Your task to perform on an android device: turn off picture-in-picture Image 0: 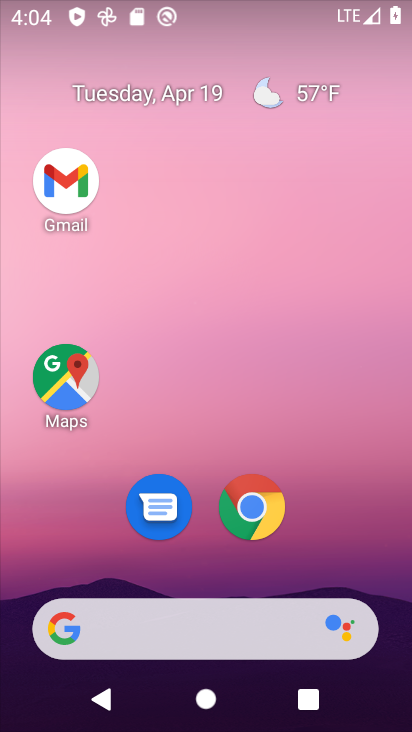
Step 0: click (246, 525)
Your task to perform on an android device: turn off picture-in-picture Image 1: 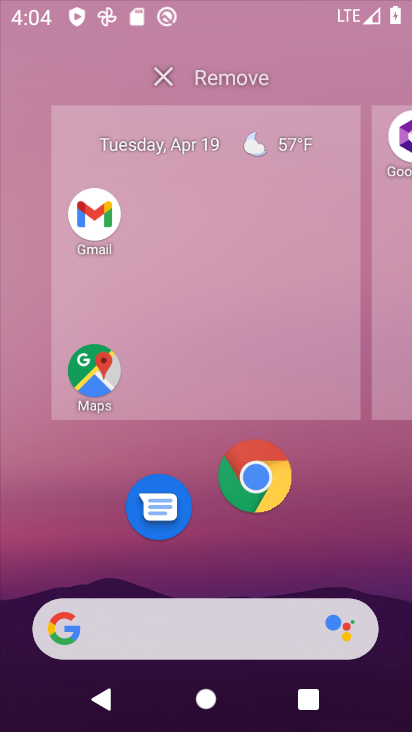
Step 1: click (252, 277)
Your task to perform on an android device: turn off picture-in-picture Image 2: 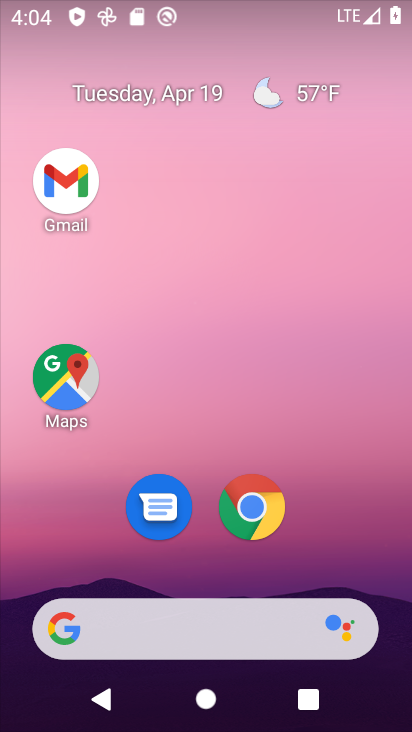
Step 2: click (252, 521)
Your task to perform on an android device: turn off picture-in-picture Image 3: 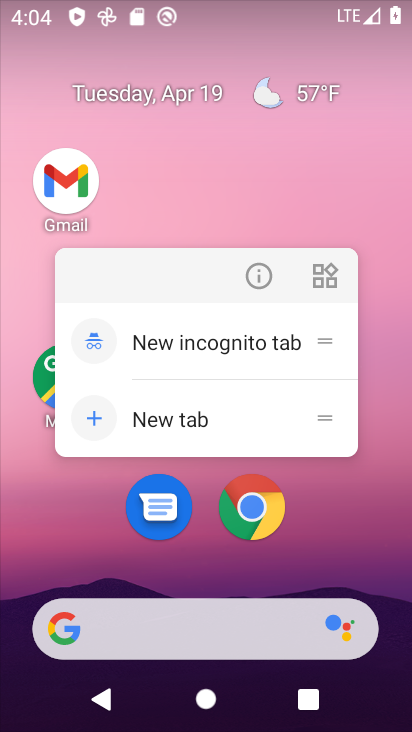
Step 3: click (254, 274)
Your task to perform on an android device: turn off picture-in-picture Image 4: 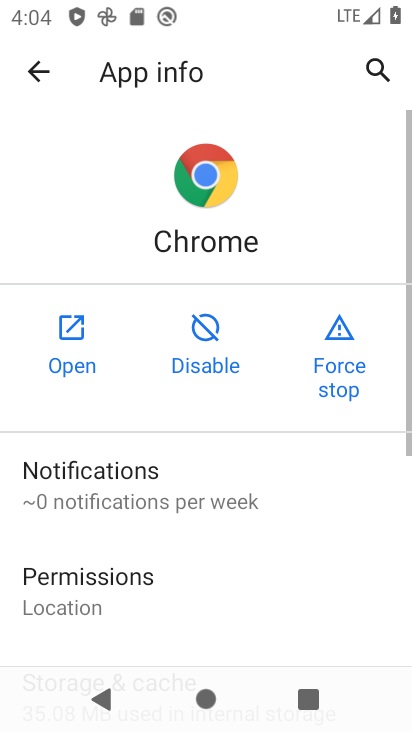
Step 4: drag from (224, 486) to (278, 76)
Your task to perform on an android device: turn off picture-in-picture Image 5: 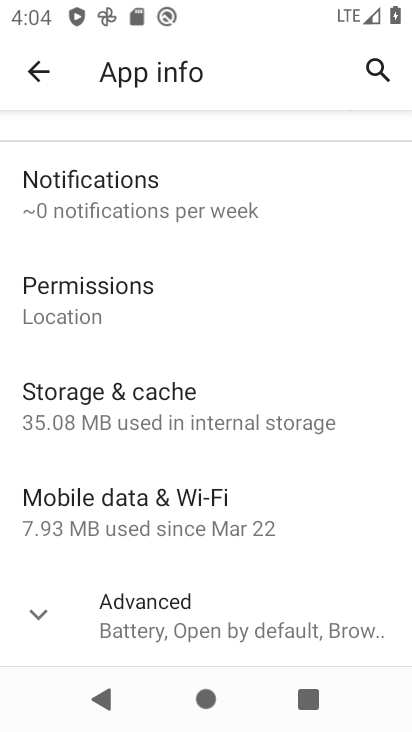
Step 5: click (242, 621)
Your task to perform on an android device: turn off picture-in-picture Image 6: 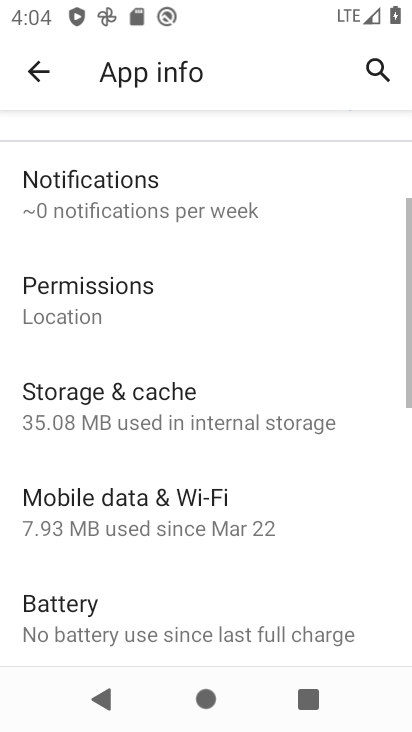
Step 6: drag from (241, 615) to (297, 107)
Your task to perform on an android device: turn off picture-in-picture Image 7: 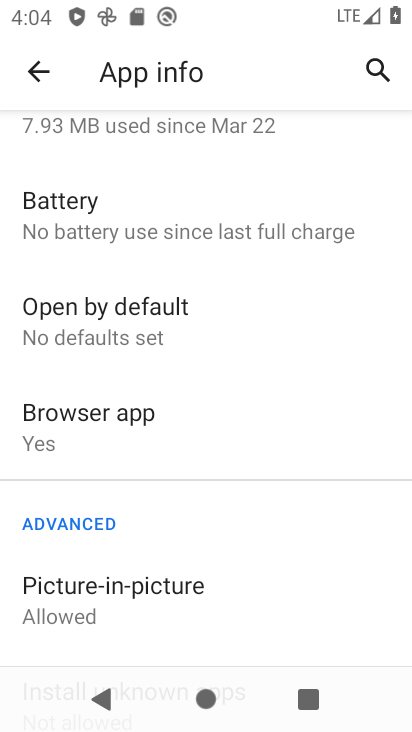
Step 7: click (254, 584)
Your task to perform on an android device: turn off picture-in-picture Image 8: 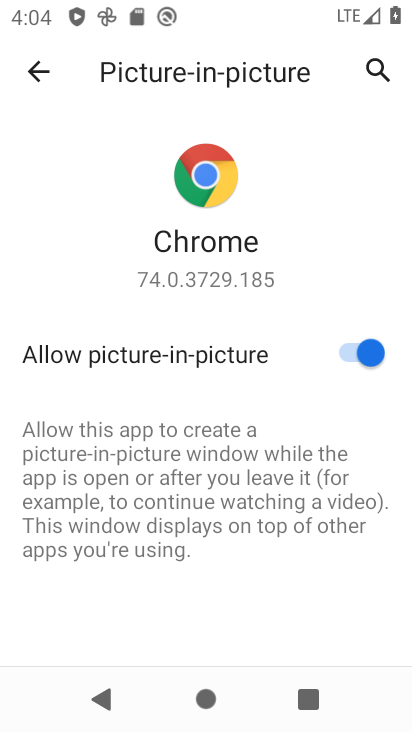
Step 8: click (376, 339)
Your task to perform on an android device: turn off picture-in-picture Image 9: 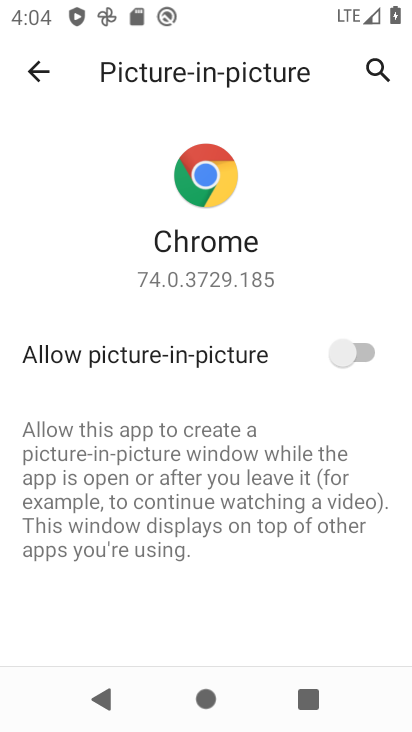
Step 9: task complete